Your task to perform on an android device: change the upload size in google photos Image 0: 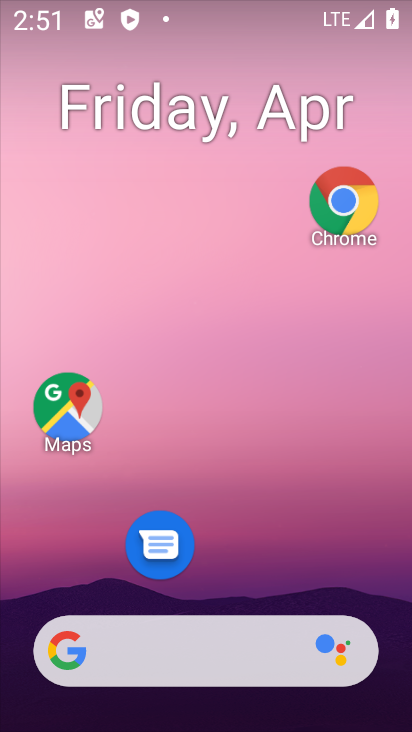
Step 0: drag from (225, 568) to (313, 16)
Your task to perform on an android device: change the upload size in google photos Image 1: 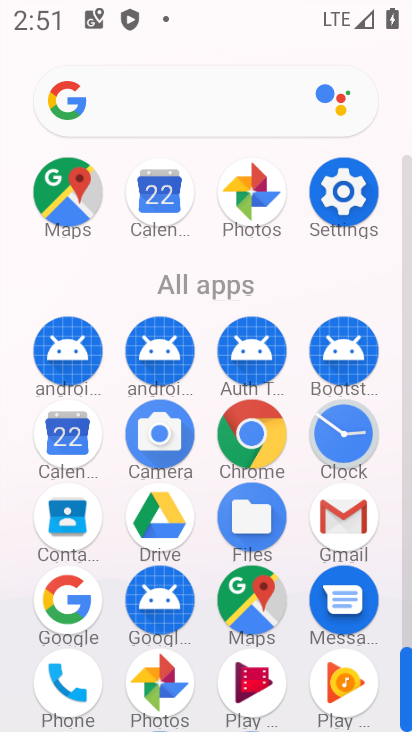
Step 1: click (245, 215)
Your task to perform on an android device: change the upload size in google photos Image 2: 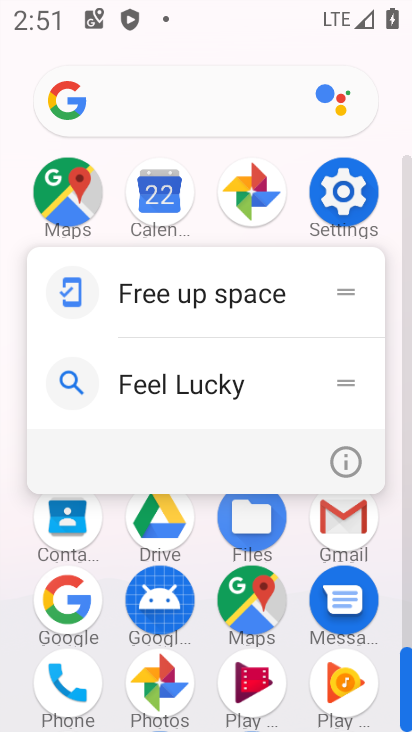
Step 2: click (245, 215)
Your task to perform on an android device: change the upload size in google photos Image 3: 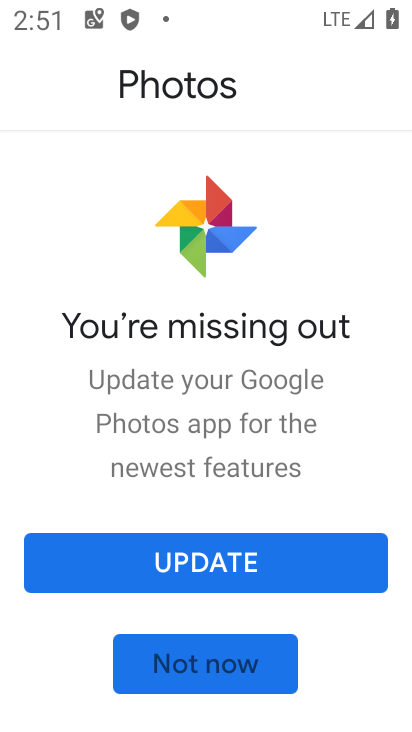
Step 3: click (164, 654)
Your task to perform on an android device: change the upload size in google photos Image 4: 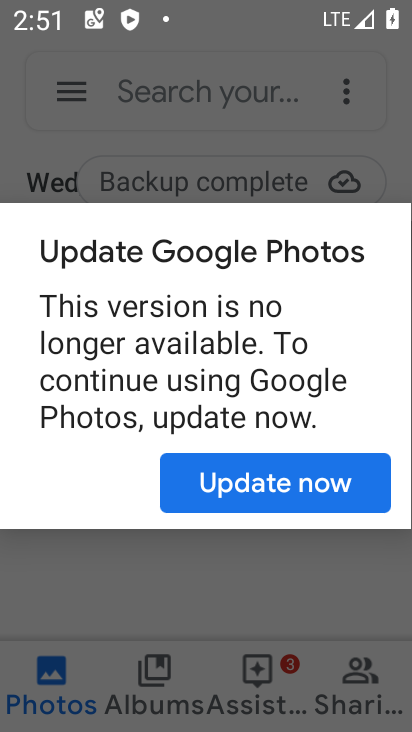
Step 4: click (296, 495)
Your task to perform on an android device: change the upload size in google photos Image 5: 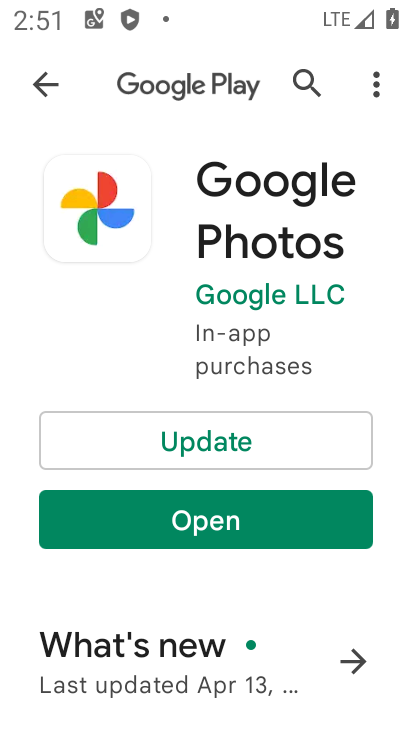
Step 5: click (214, 518)
Your task to perform on an android device: change the upload size in google photos Image 6: 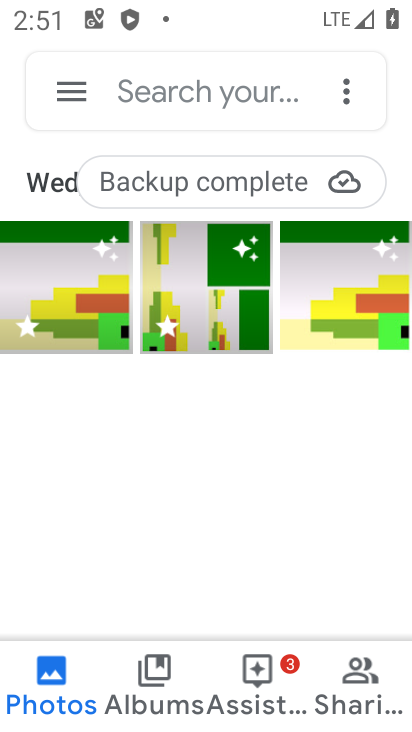
Step 6: click (59, 102)
Your task to perform on an android device: change the upload size in google photos Image 7: 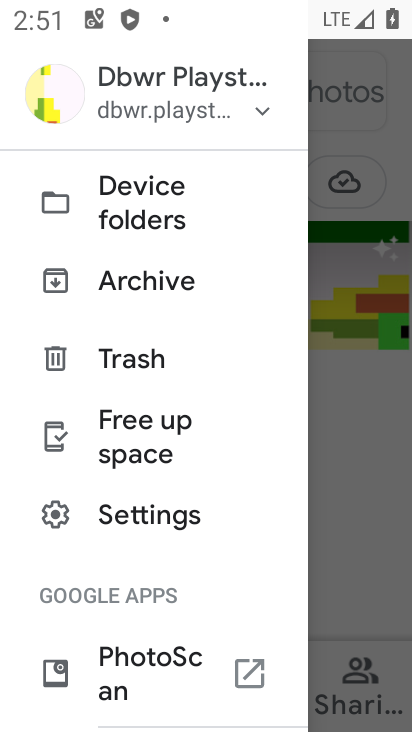
Step 7: click (124, 527)
Your task to perform on an android device: change the upload size in google photos Image 8: 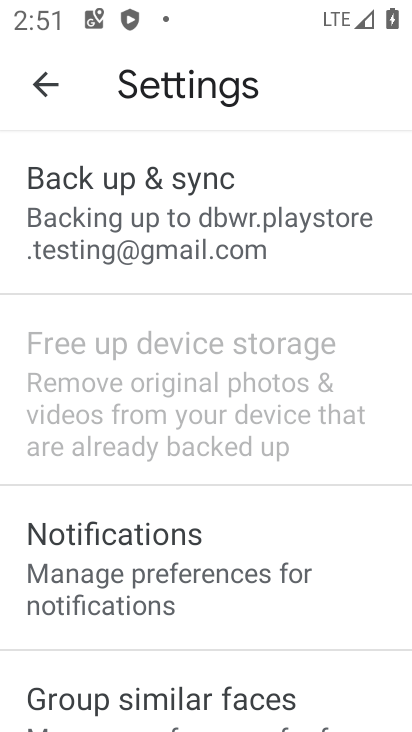
Step 8: click (183, 211)
Your task to perform on an android device: change the upload size in google photos Image 9: 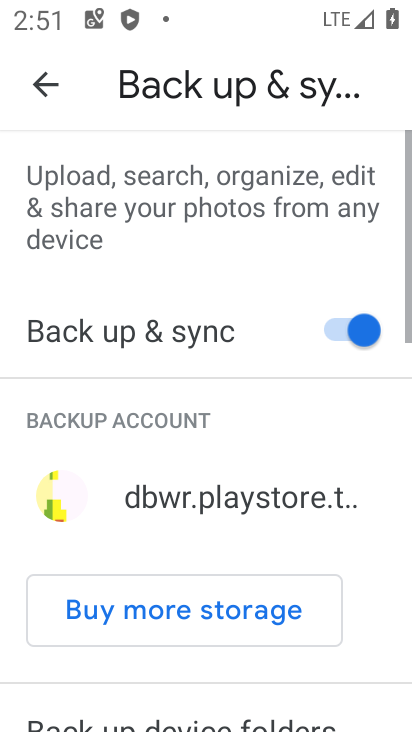
Step 9: drag from (164, 528) to (176, 123)
Your task to perform on an android device: change the upload size in google photos Image 10: 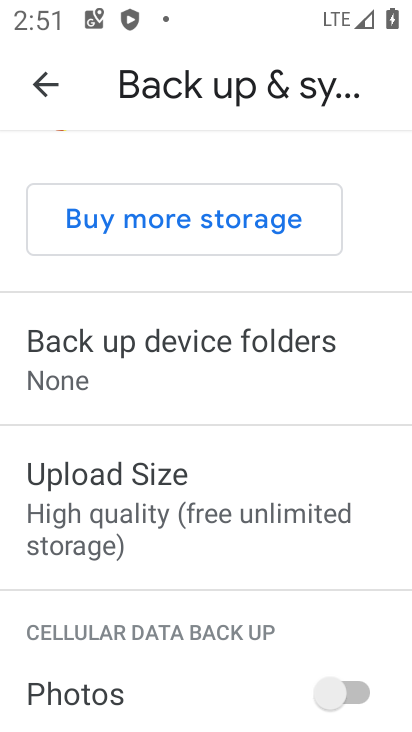
Step 10: click (127, 504)
Your task to perform on an android device: change the upload size in google photos Image 11: 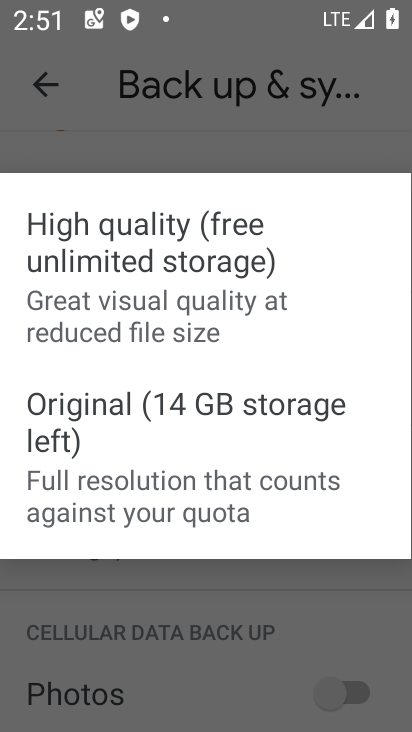
Step 11: click (99, 450)
Your task to perform on an android device: change the upload size in google photos Image 12: 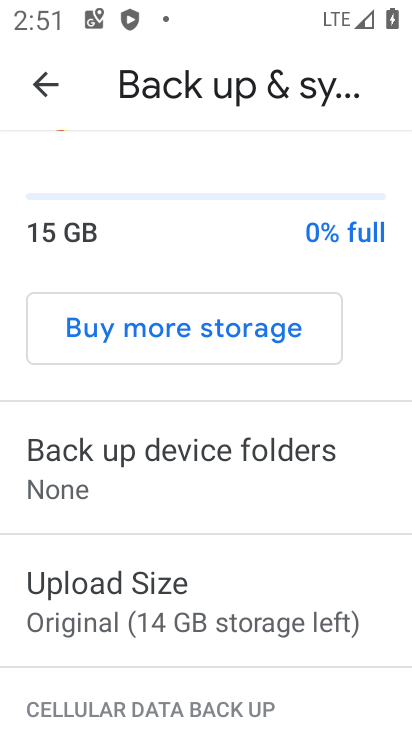
Step 12: task complete